Your task to perform on an android device: Open Android settings Image 0: 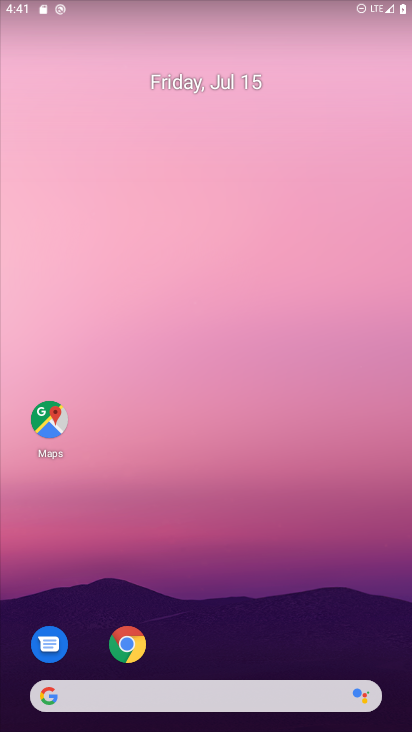
Step 0: drag from (211, 651) to (210, 263)
Your task to perform on an android device: Open Android settings Image 1: 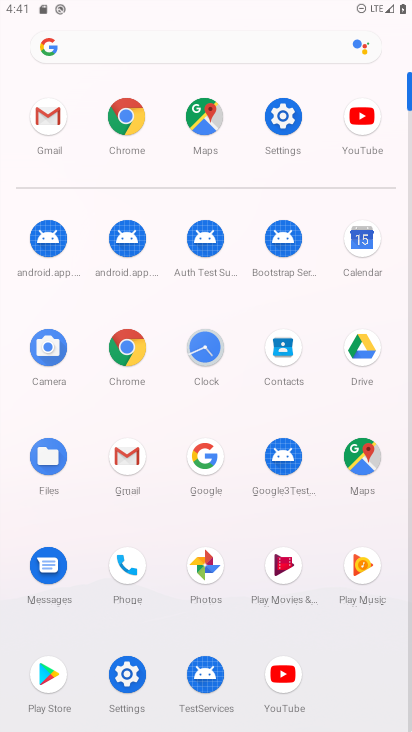
Step 1: drag from (184, 621) to (397, 361)
Your task to perform on an android device: Open Android settings Image 2: 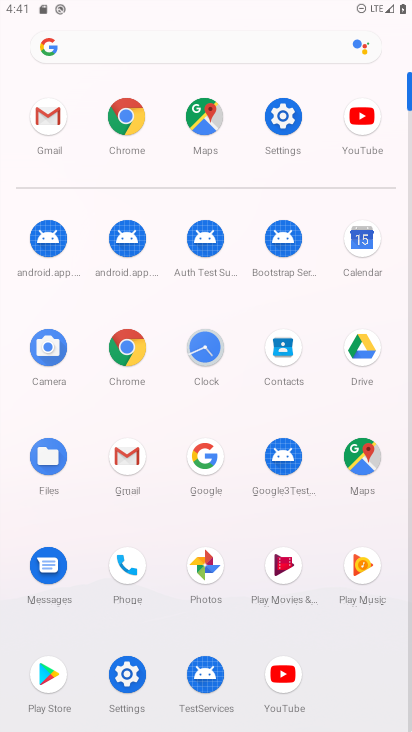
Step 2: click (278, 123)
Your task to perform on an android device: Open Android settings Image 3: 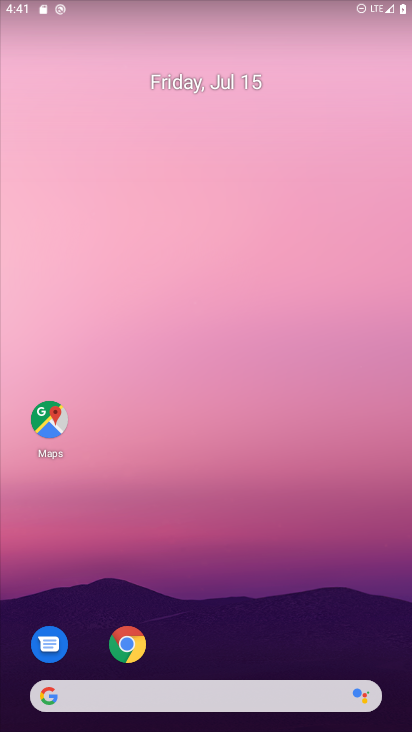
Step 3: drag from (226, 551) to (159, 139)
Your task to perform on an android device: Open Android settings Image 4: 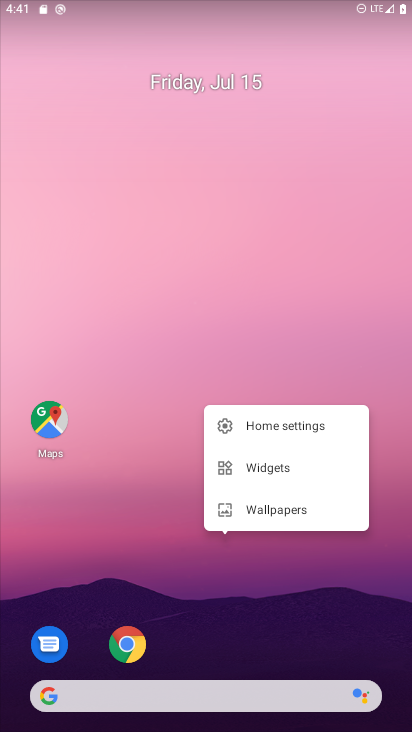
Step 4: drag from (148, 457) to (139, 154)
Your task to perform on an android device: Open Android settings Image 5: 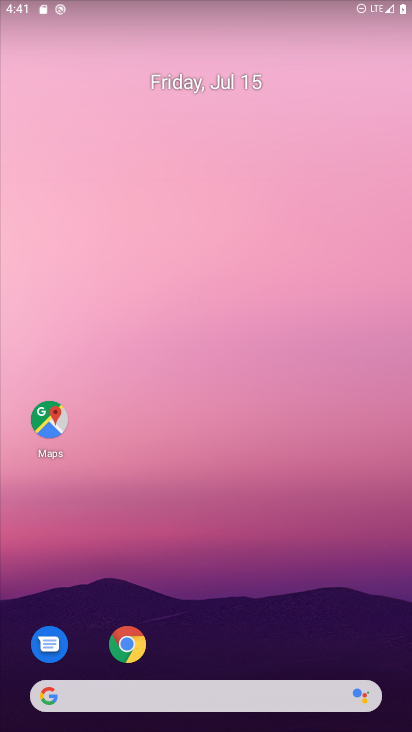
Step 5: drag from (187, 508) to (170, 174)
Your task to perform on an android device: Open Android settings Image 6: 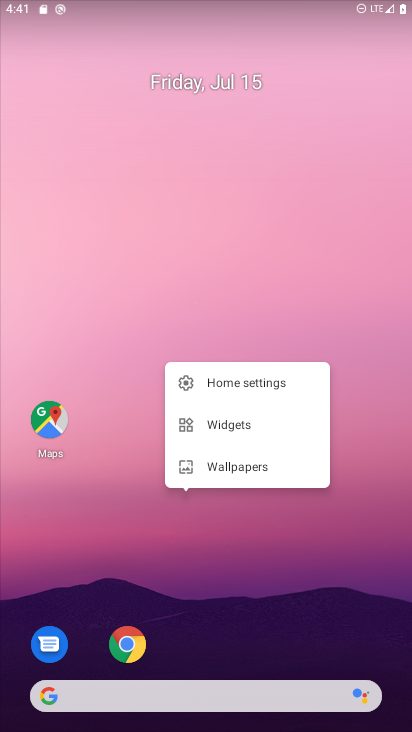
Step 6: click (106, 267)
Your task to perform on an android device: Open Android settings Image 7: 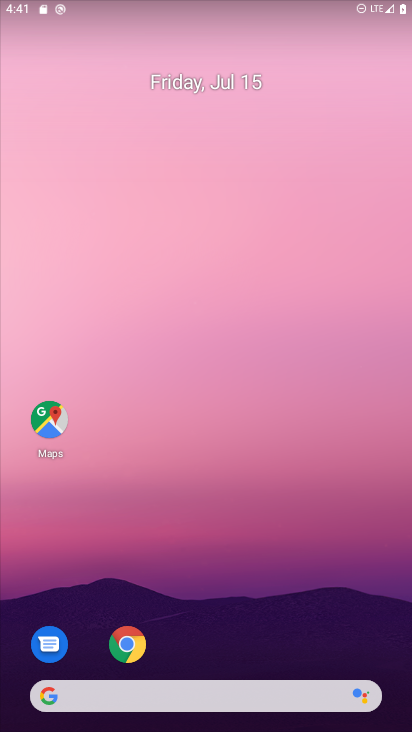
Step 7: drag from (205, 589) to (195, 179)
Your task to perform on an android device: Open Android settings Image 8: 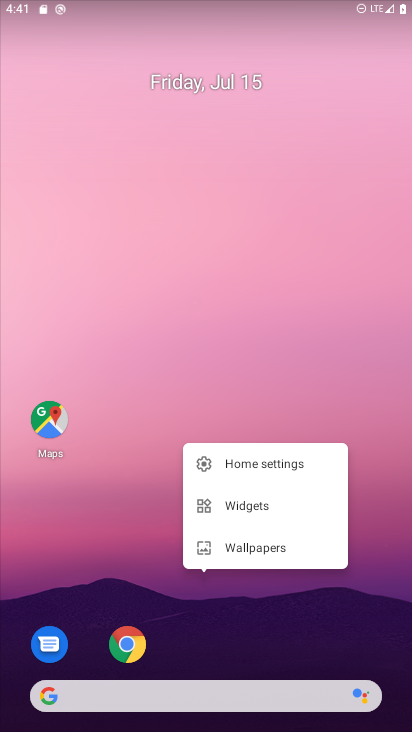
Step 8: drag from (218, 631) to (211, 239)
Your task to perform on an android device: Open Android settings Image 9: 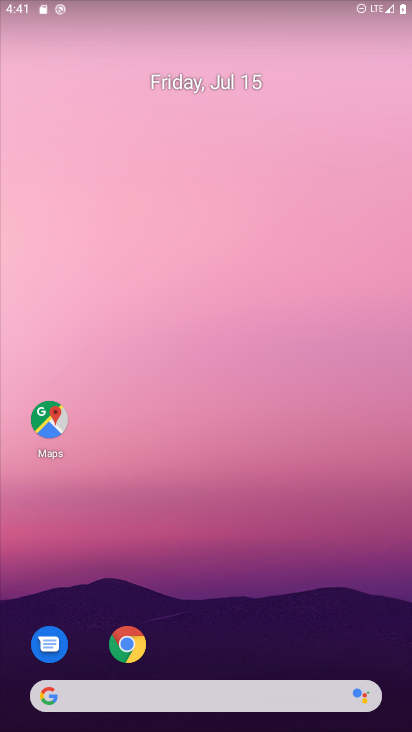
Step 9: drag from (205, 647) to (204, 283)
Your task to perform on an android device: Open Android settings Image 10: 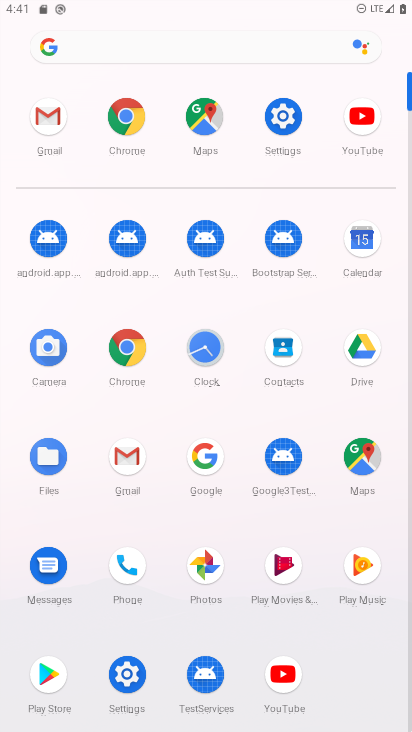
Step 10: click (294, 111)
Your task to perform on an android device: Open Android settings Image 11: 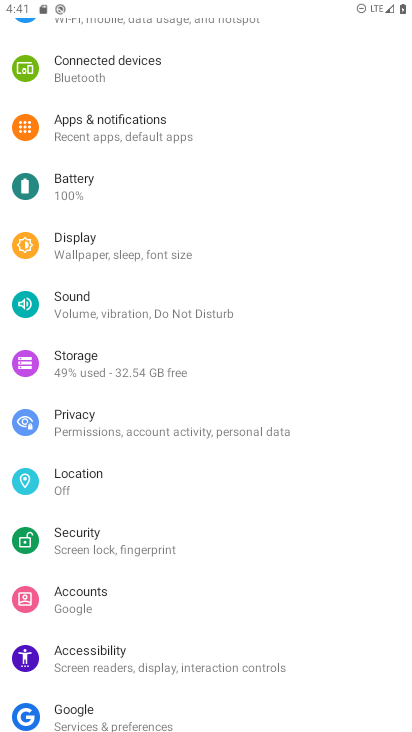
Step 11: task complete